Your task to perform on an android device: uninstall "Instagram" Image 0: 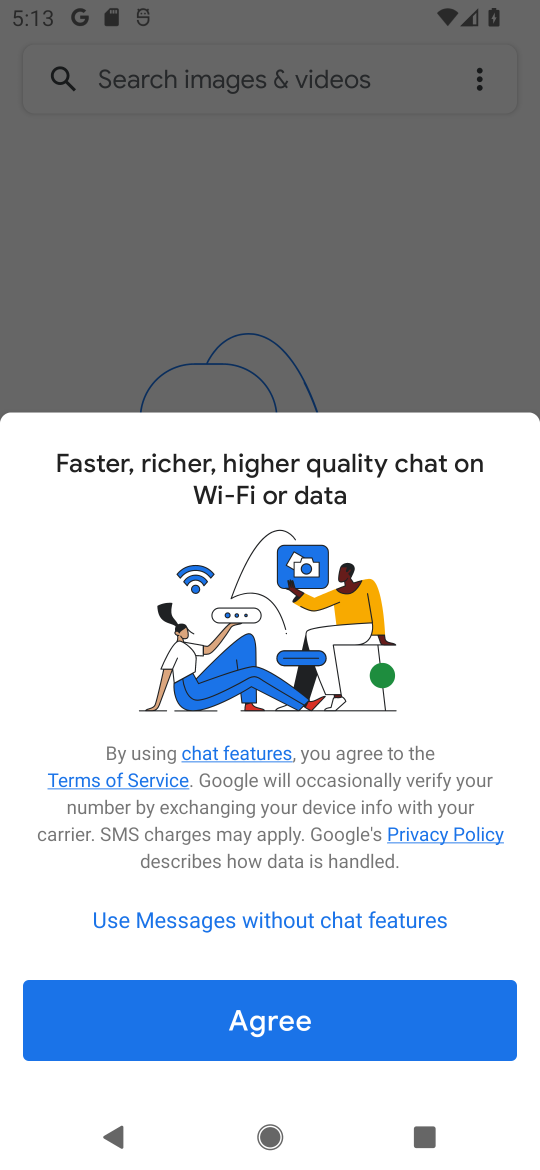
Step 0: press home button
Your task to perform on an android device: uninstall "Instagram" Image 1: 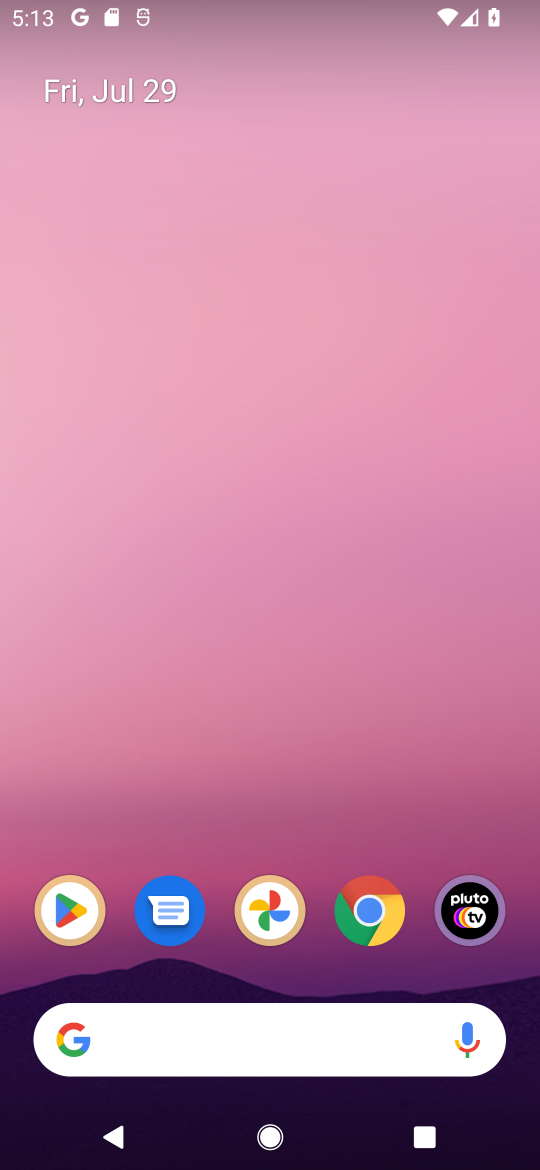
Step 1: drag from (317, 853) to (351, 57)
Your task to perform on an android device: uninstall "Instagram" Image 2: 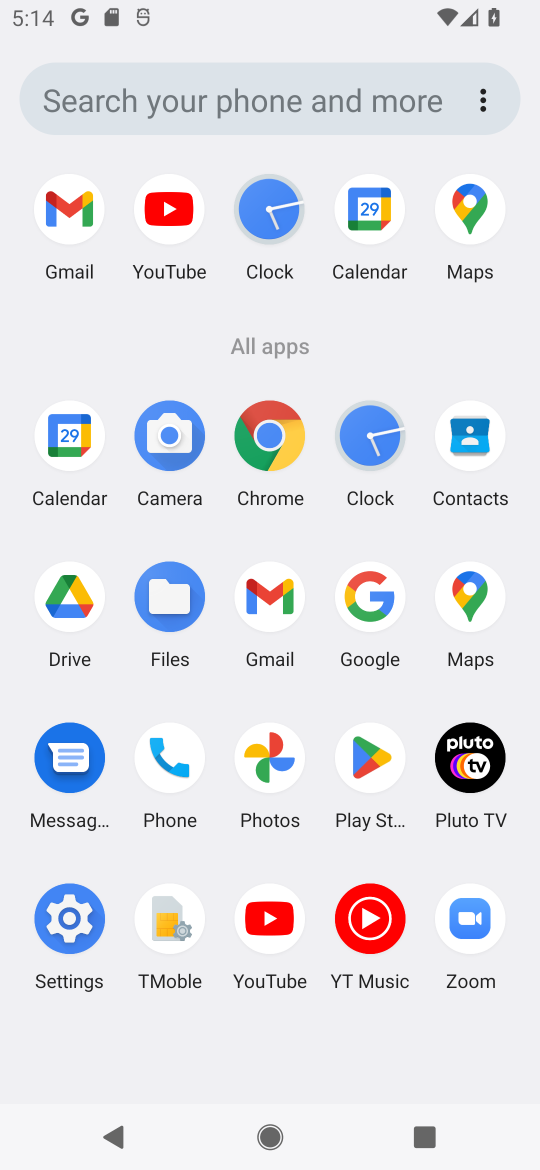
Step 2: click (365, 759)
Your task to perform on an android device: uninstall "Instagram" Image 3: 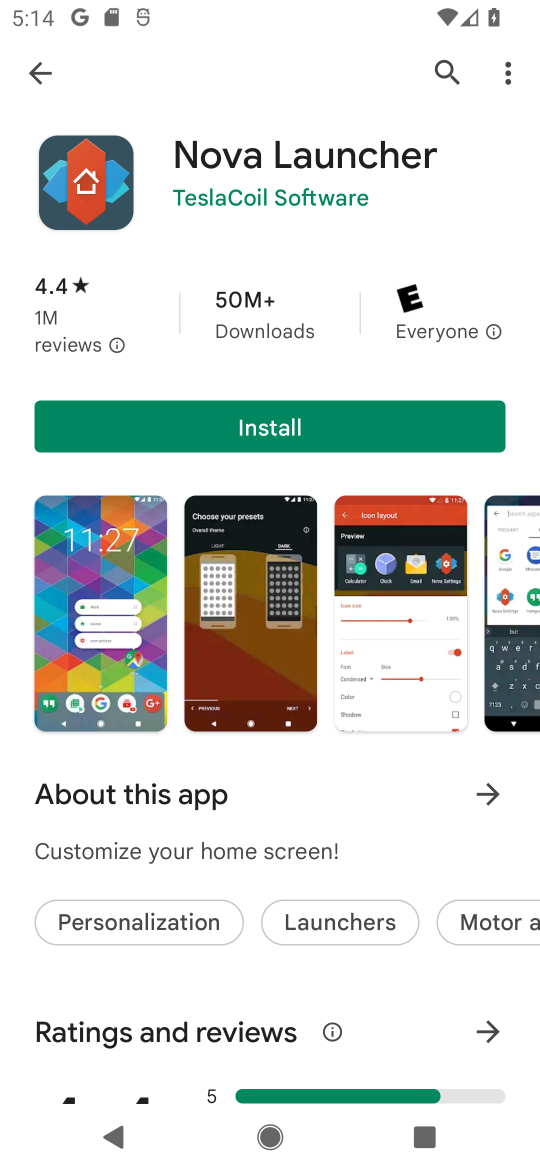
Step 3: click (439, 77)
Your task to perform on an android device: uninstall "Instagram" Image 4: 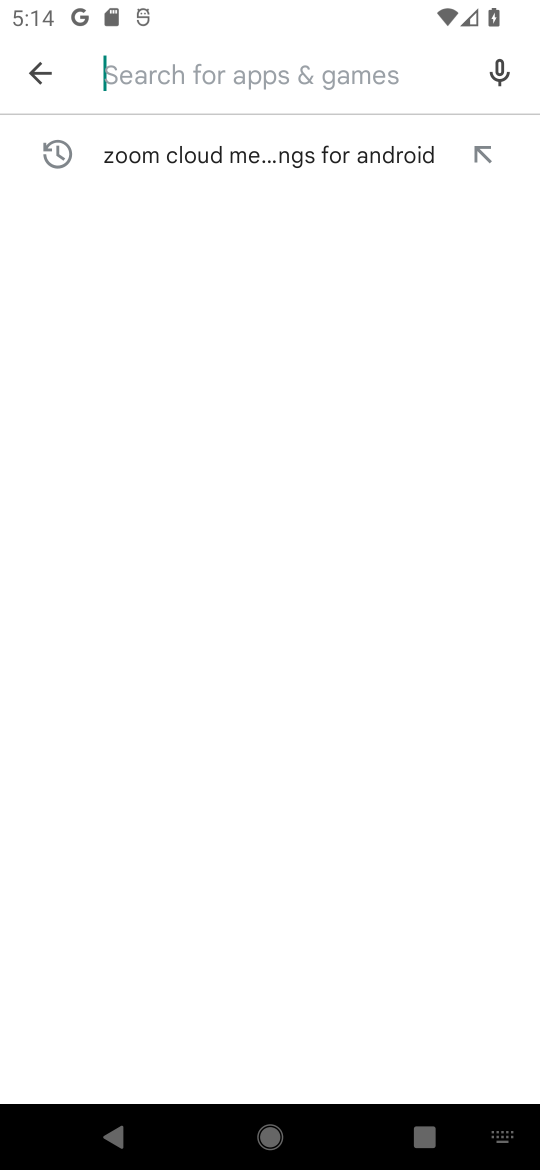
Step 4: type "instagram"
Your task to perform on an android device: uninstall "Instagram" Image 5: 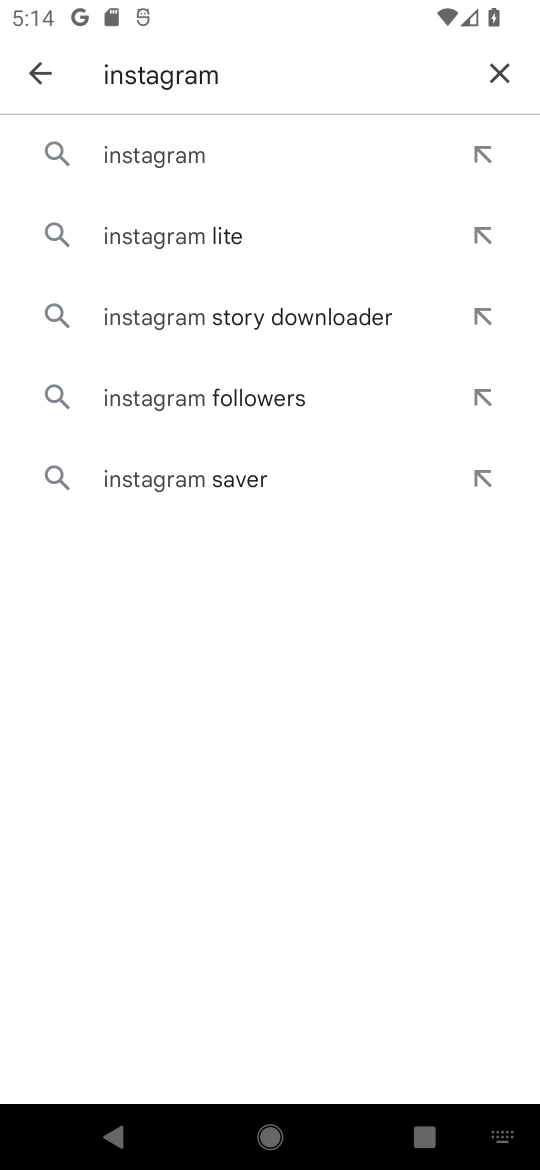
Step 5: click (154, 136)
Your task to perform on an android device: uninstall "Instagram" Image 6: 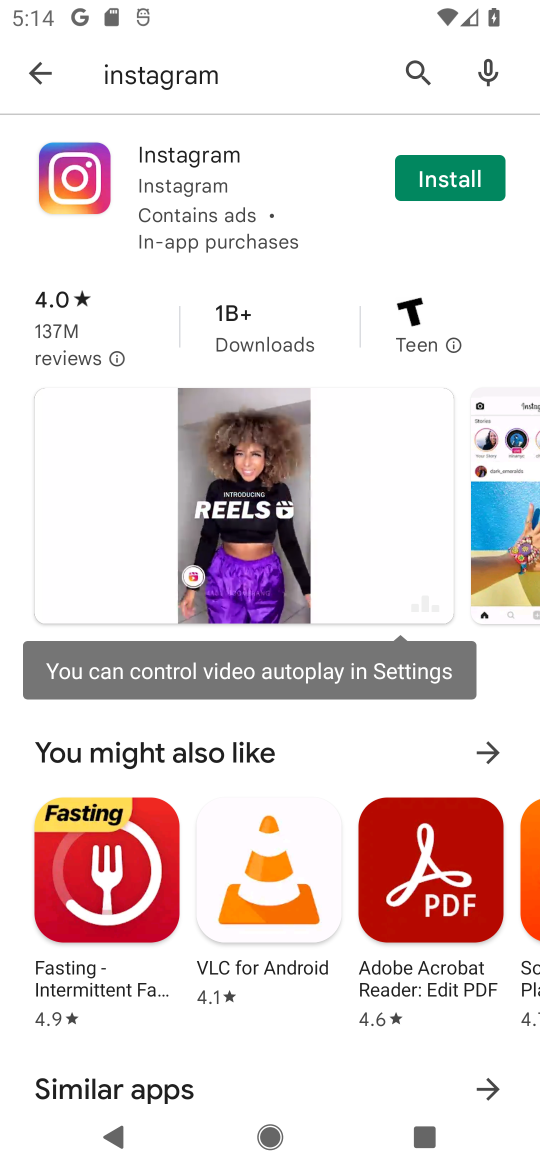
Step 6: click (187, 146)
Your task to perform on an android device: uninstall "Instagram" Image 7: 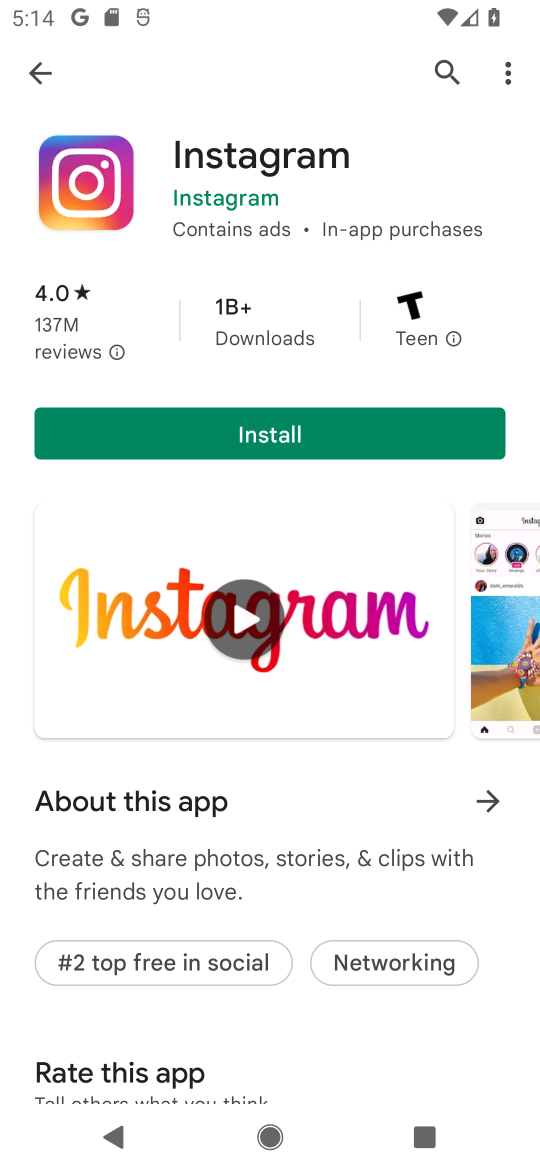
Step 7: task complete